Your task to perform on an android device: set the timer Image 0: 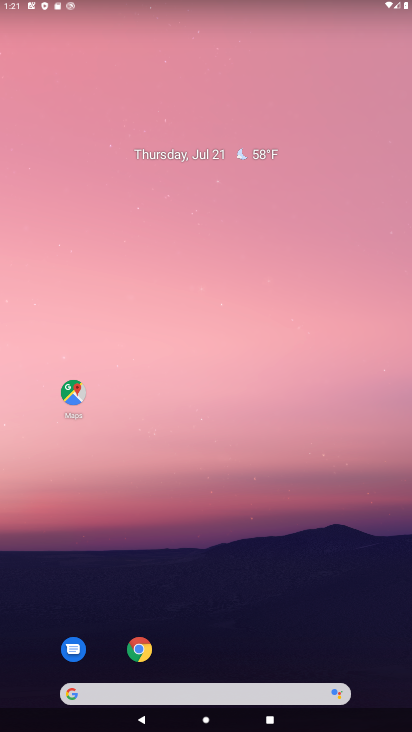
Step 0: drag from (260, 656) to (238, 1)
Your task to perform on an android device: set the timer Image 1: 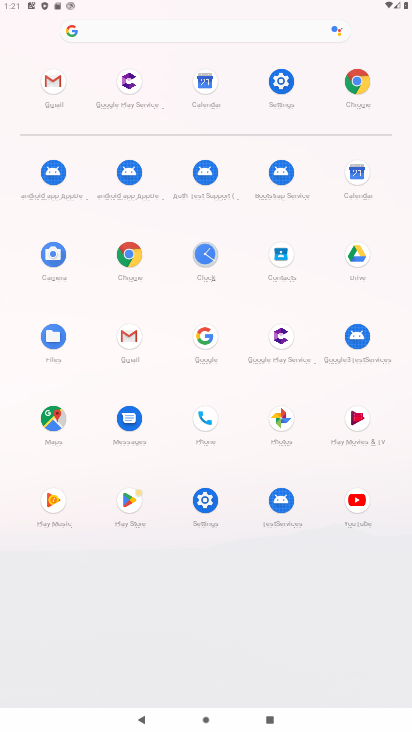
Step 1: click (210, 268)
Your task to perform on an android device: set the timer Image 2: 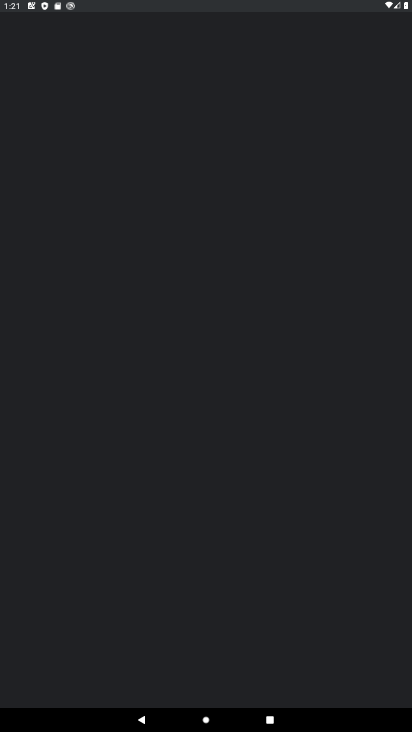
Step 2: task complete